Your task to perform on an android device: show emergency info Image 0: 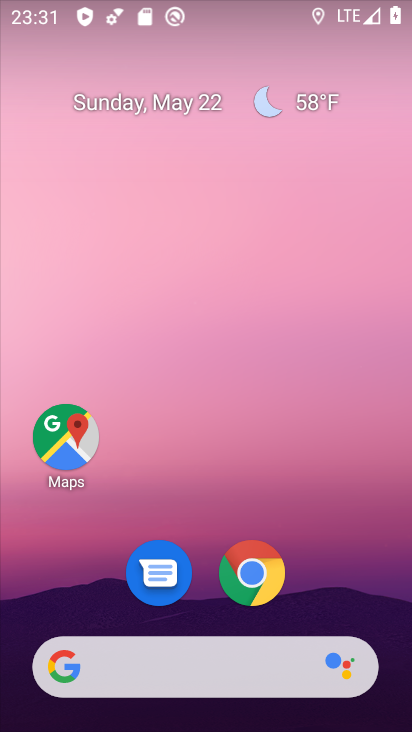
Step 0: drag from (193, 629) to (261, 98)
Your task to perform on an android device: show emergency info Image 1: 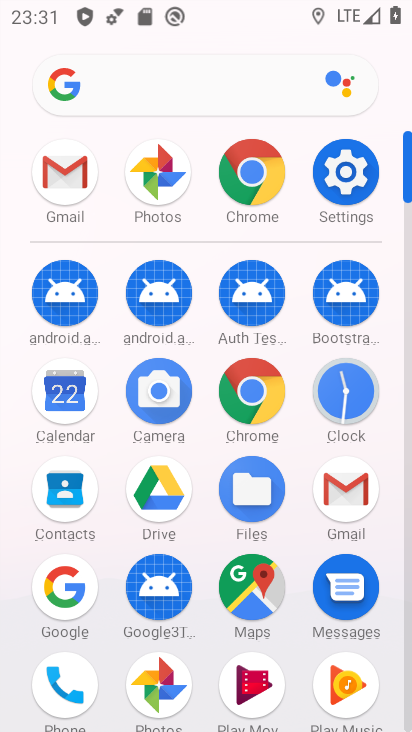
Step 1: click (347, 176)
Your task to perform on an android device: show emergency info Image 2: 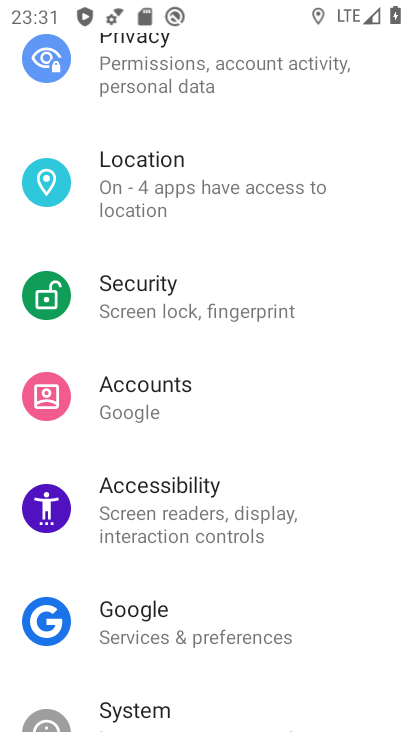
Step 2: drag from (201, 642) to (269, 227)
Your task to perform on an android device: show emergency info Image 3: 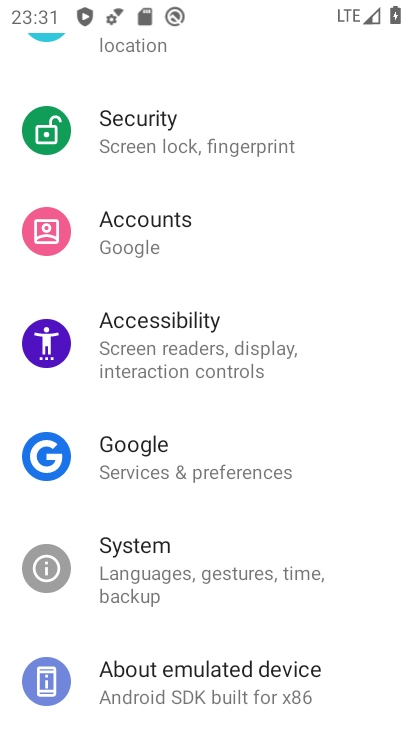
Step 3: drag from (217, 644) to (278, 215)
Your task to perform on an android device: show emergency info Image 4: 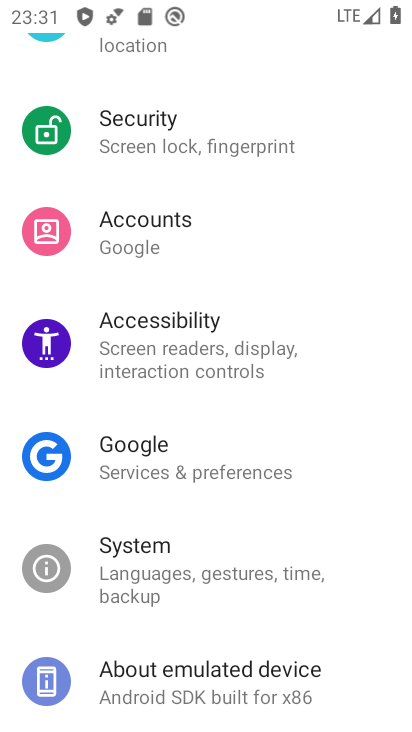
Step 4: drag from (241, 638) to (265, 291)
Your task to perform on an android device: show emergency info Image 5: 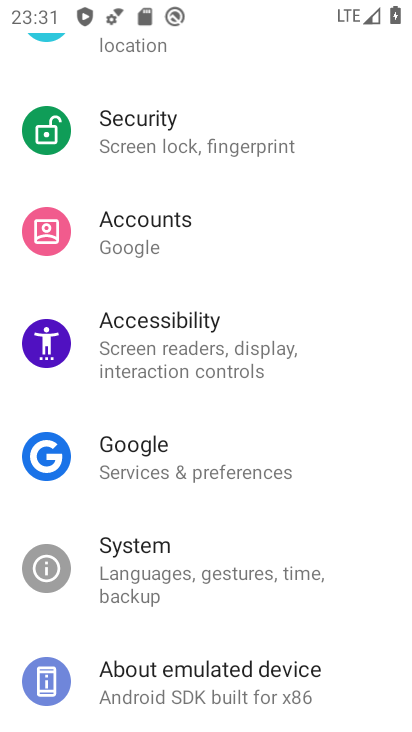
Step 5: click (209, 667)
Your task to perform on an android device: show emergency info Image 6: 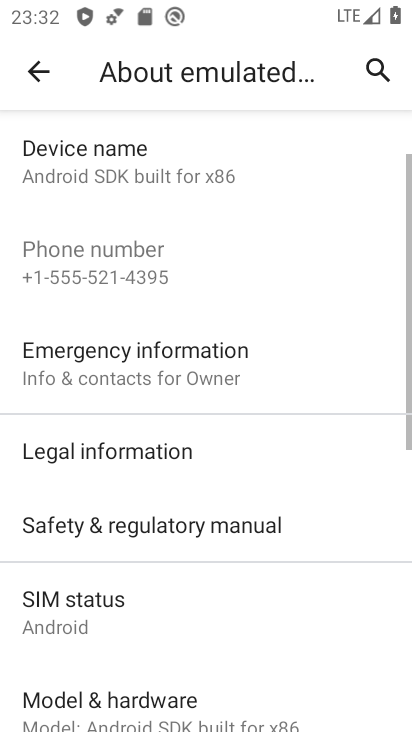
Step 6: click (119, 365)
Your task to perform on an android device: show emergency info Image 7: 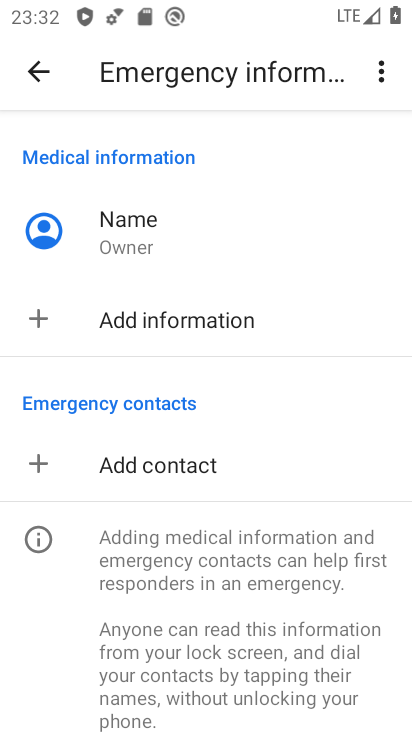
Step 7: task complete